Your task to perform on an android device: show emergency info Image 0: 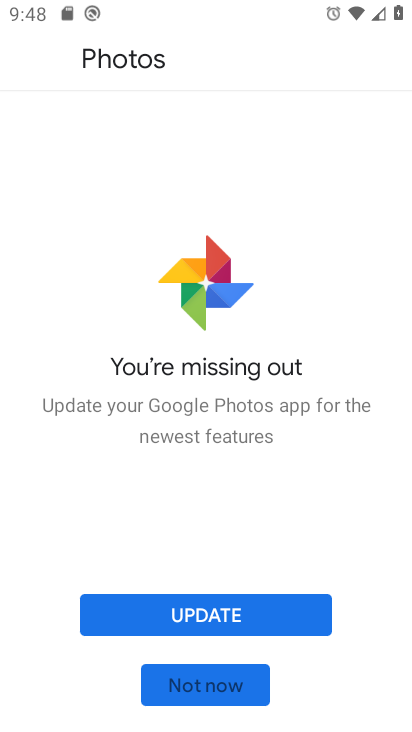
Step 0: press home button
Your task to perform on an android device: show emergency info Image 1: 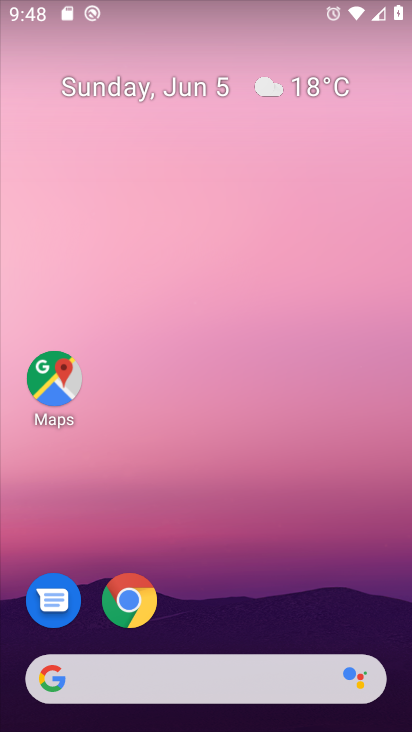
Step 1: drag from (261, 542) to (243, 35)
Your task to perform on an android device: show emergency info Image 2: 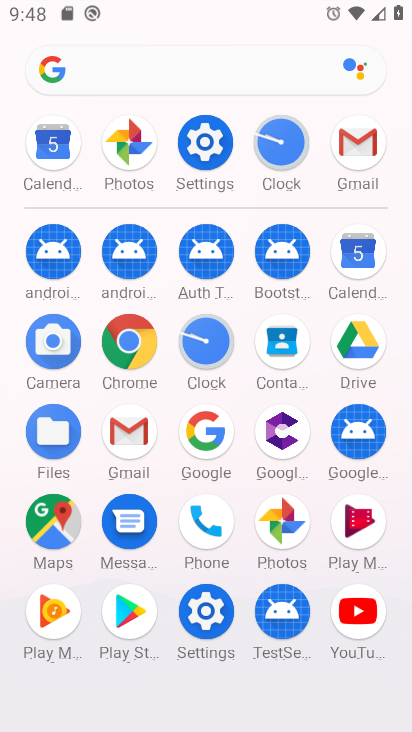
Step 2: click (211, 143)
Your task to perform on an android device: show emergency info Image 3: 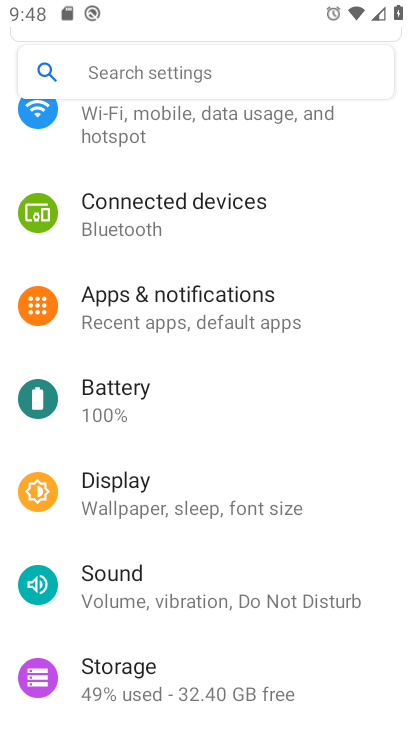
Step 3: drag from (204, 475) to (201, 34)
Your task to perform on an android device: show emergency info Image 4: 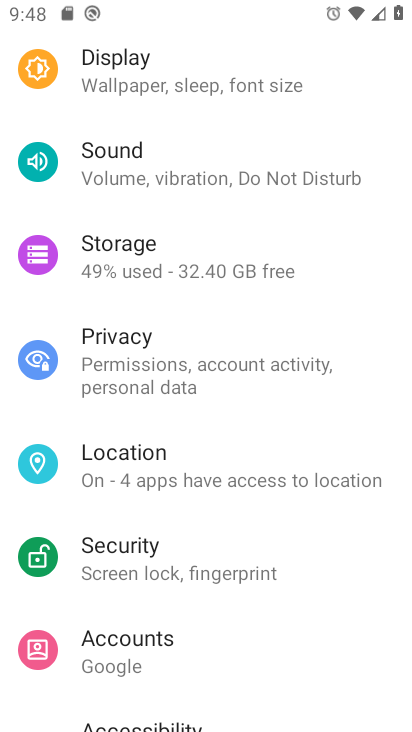
Step 4: drag from (232, 511) to (242, 20)
Your task to perform on an android device: show emergency info Image 5: 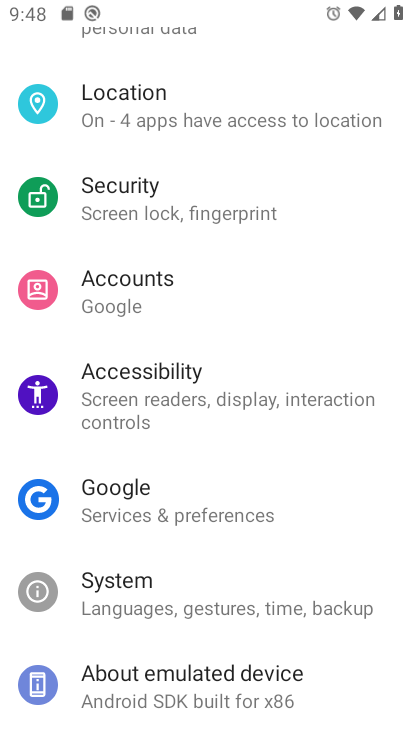
Step 5: click (244, 684)
Your task to perform on an android device: show emergency info Image 6: 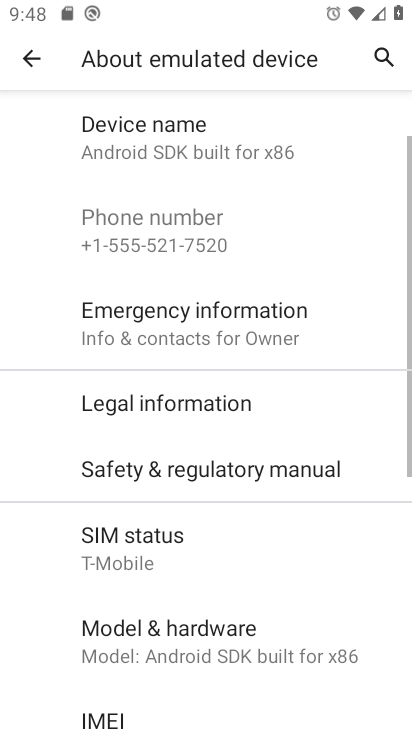
Step 6: click (229, 315)
Your task to perform on an android device: show emergency info Image 7: 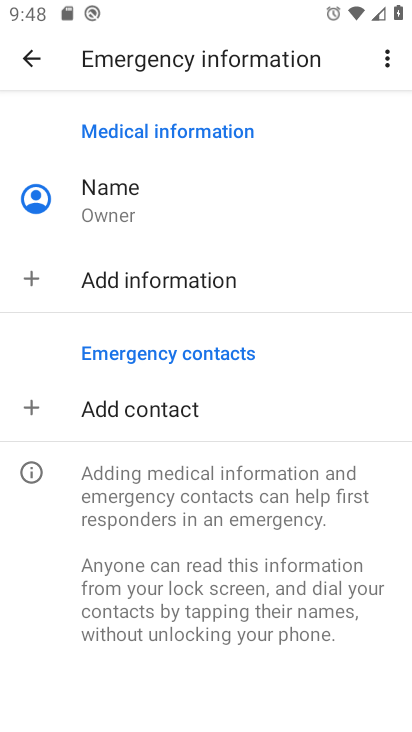
Step 7: task complete